Your task to perform on an android device: Show me productivity apps on the Play Store Image 0: 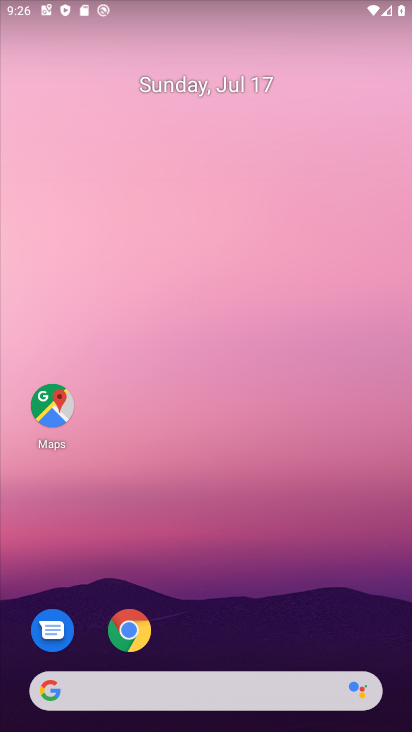
Step 0: drag from (231, 699) to (259, 147)
Your task to perform on an android device: Show me productivity apps on the Play Store Image 1: 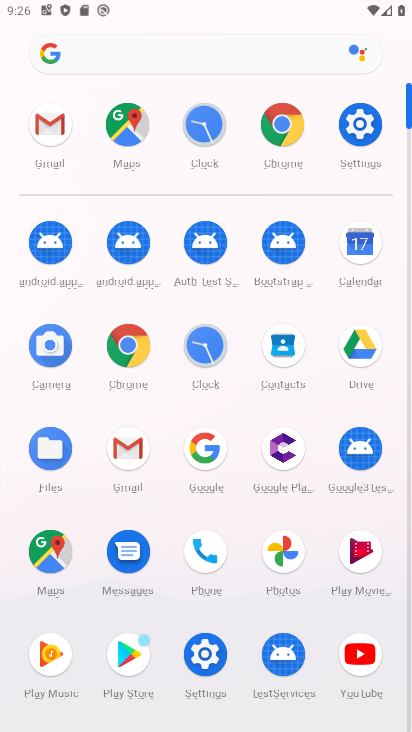
Step 1: click (147, 657)
Your task to perform on an android device: Show me productivity apps on the Play Store Image 2: 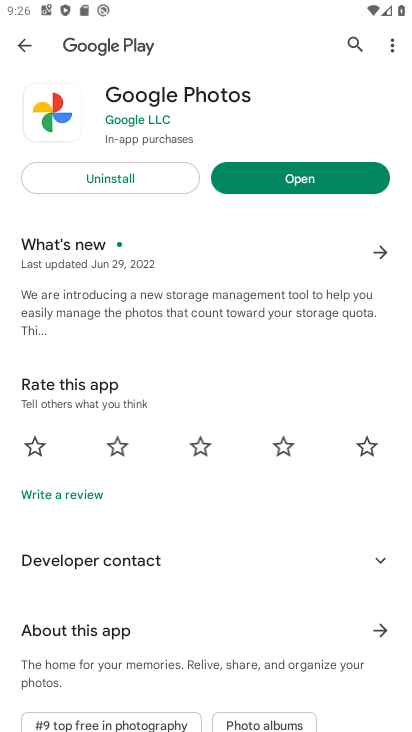
Step 2: press home button
Your task to perform on an android device: Show me productivity apps on the Play Store Image 3: 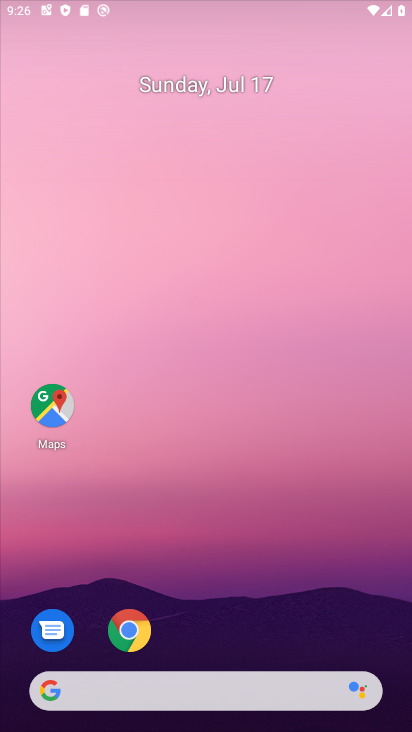
Step 3: drag from (310, 340) to (303, 44)
Your task to perform on an android device: Show me productivity apps on the Play Store Image 4: 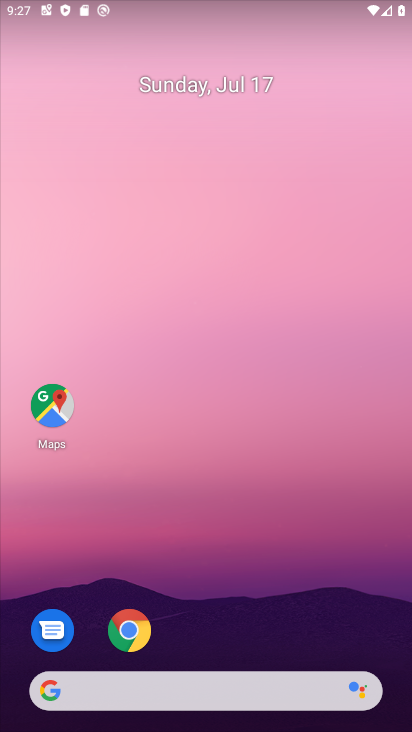
Step 4: drag from (256, 668) to (259, 9)
Your task to perform on an android device: Show me productivity apps on the Play Store Image 5: 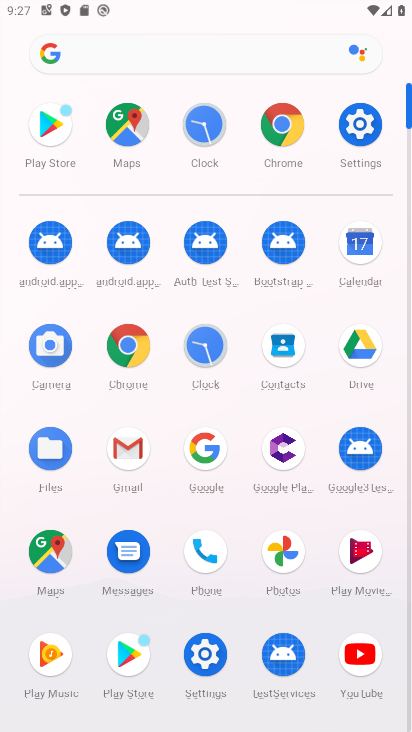
Step 5: drag from (223, 615) to (246, 127)
Your task to perform on an android device: Show me productivity apps on the Play Store Image 6: 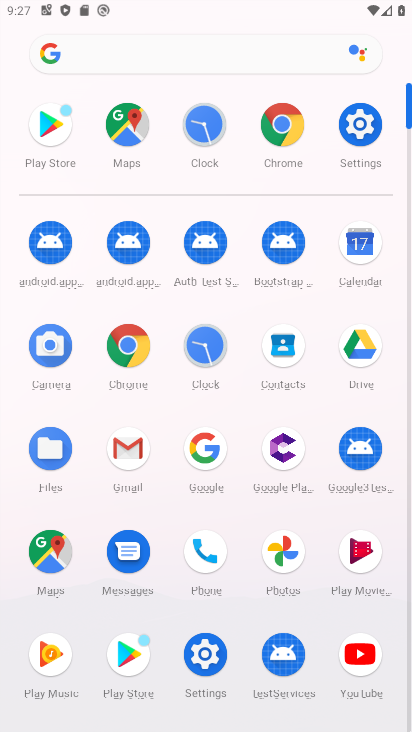
Step 6: click (135, 662)
Your task to perform on an android device: Show me productivity apps on the Play Store Image 7: 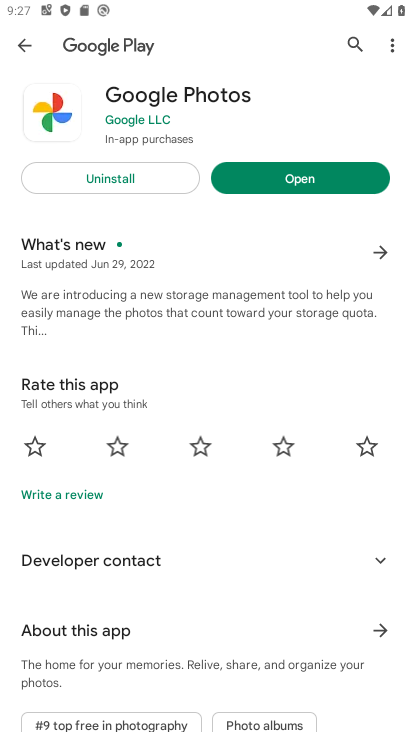
Step 7: press back button
Your task to perform on an android device: Show me productivity apps on the Play Store Image 8: 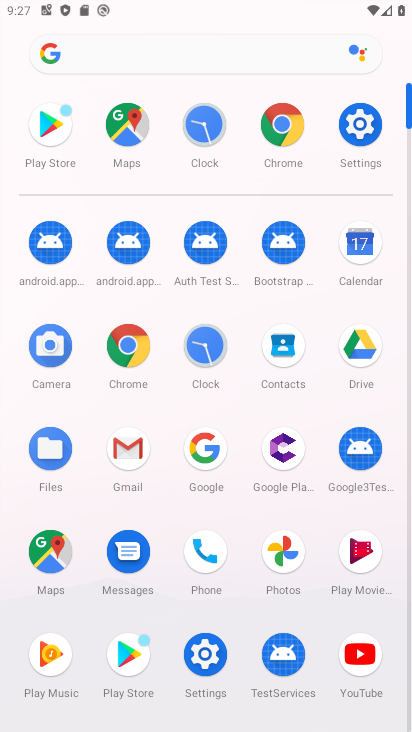
Step 8: click (134, 652)
Your task to perform on an android device: Show me productivity apps on the Play Store Image 9: 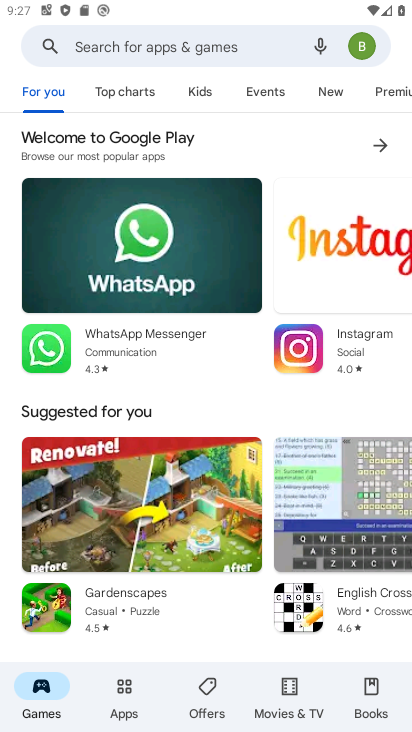
Step 9: click (126, 689)
Your task to perform on an android device: Show me productivity apps on the Play Store Image 10: 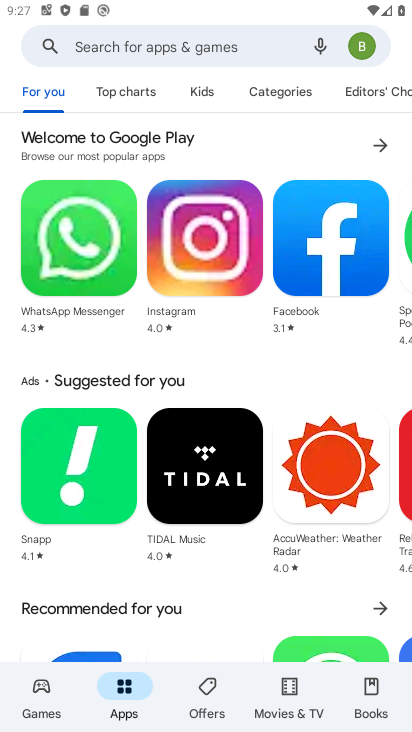
Step 10: drag from (218, 599) to (205, 78)
Your task to perform on an android device: Show me productivity apps on the Play Store Image 11: 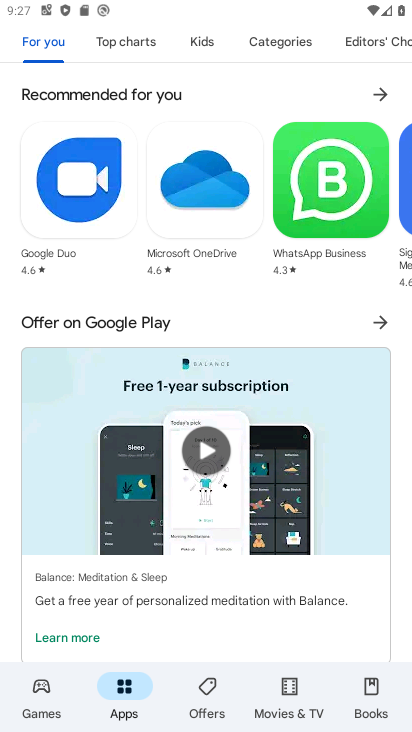
Step 11: drag from (257, 589) to (298, 150)
Your task to perform on an android device: Show me productivity apps on the Play Store Image 12: 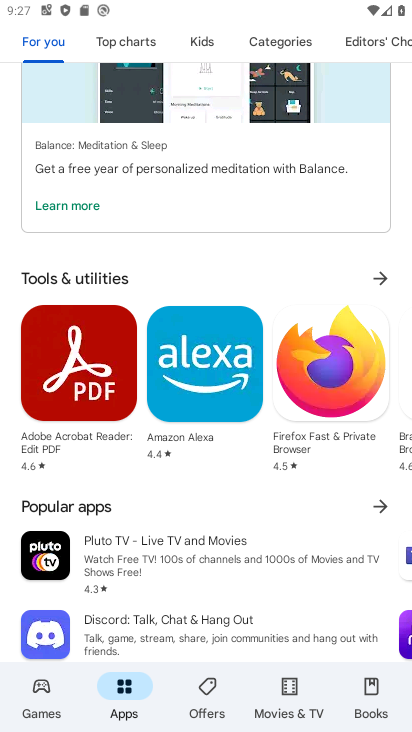
Step 12: drag from (235, 601) to (323, 161)
Your task to perform on an android device: Show me productivity apps on the Play Store Image 13: 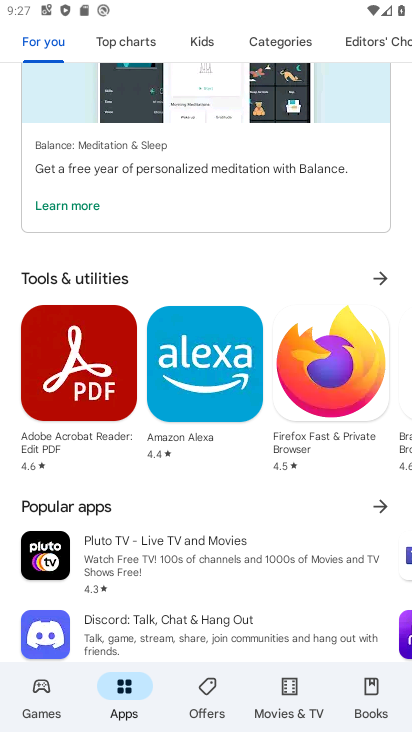
Step 13: drag from (316, 555) to (280, 53)
Your task to perform on an android device: Show me productivity apps on the Play Store Image 14: 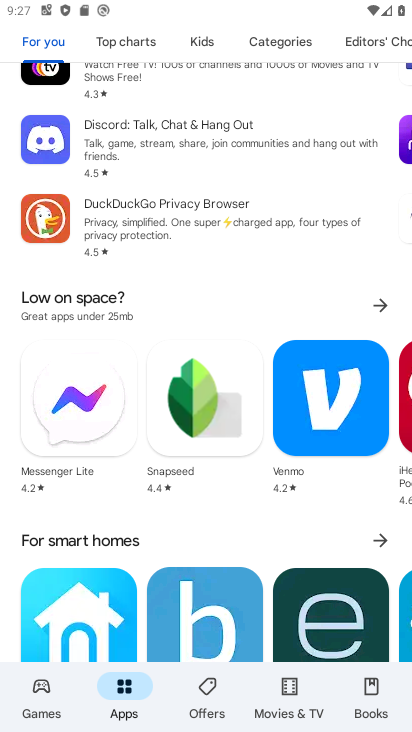
Step 14: drag from (229, 513) to (249, 118)
Your task to perform on an android device: Show me productivity apps on the Play Store Image 15: 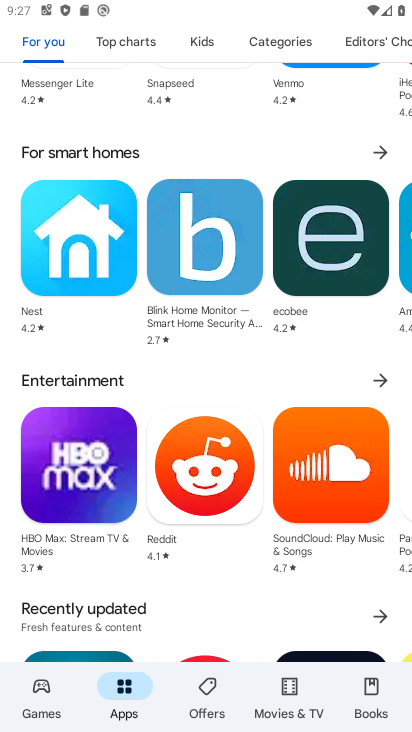
Step 15: drag from (264, 587) to (270, 103)
Your task to perform on an android device: Show me productivity apps on the Play Store Image 16: 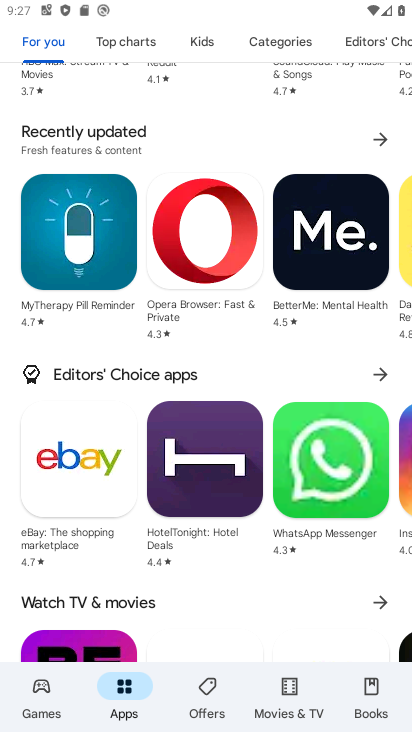
Step 16: drag from (161, 568) to (182, 131)
Your task to perform on an android device: Show me productivity apps on the Play Store Image 17: 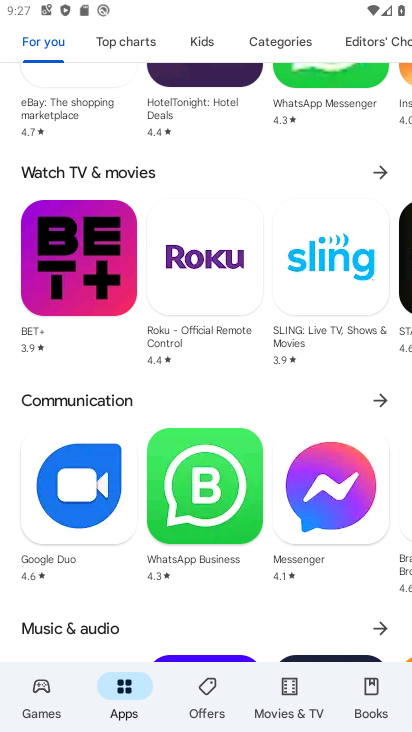
Step 17: drag from (175, 638) to (225, 160)
Your task to perform on an android device: Show me productivity apps on the Play Store Image 18: 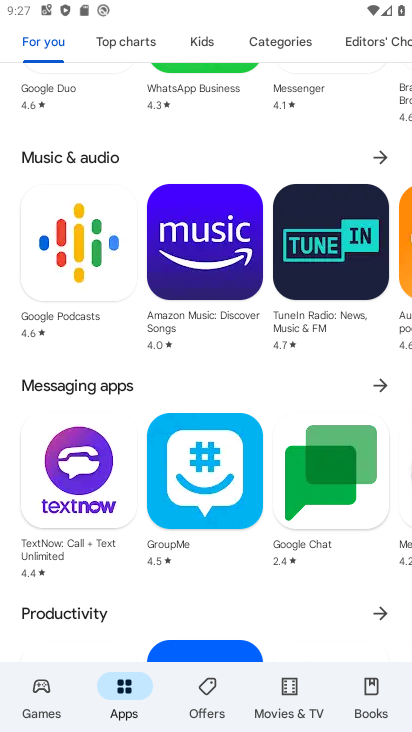
Step 18: drag from (173, 635) to (244, 463)
Your task to perform on an android device: Show me productivity apps on the Play Store Image 19: 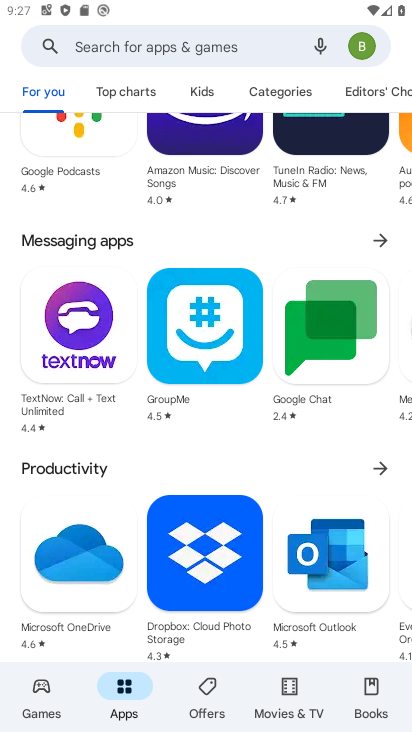
Step 19: click (377, 473)
Your task to perform on an android device: Show me productivity apps on the Play Store Image 20: 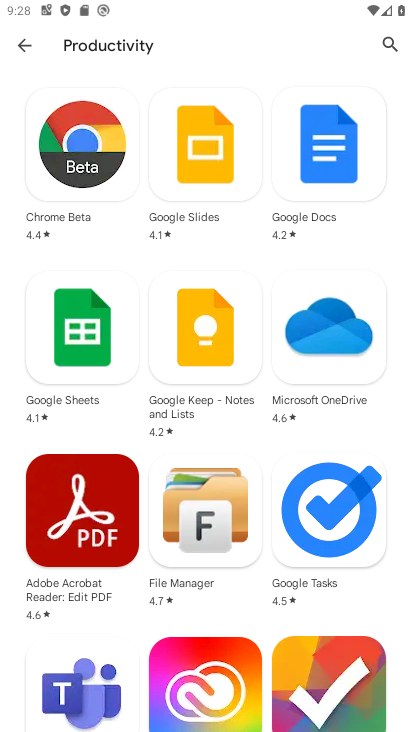
Step 20: task complete